Your task to perform on an android device: Show me the alarms in the clock app Image 0: 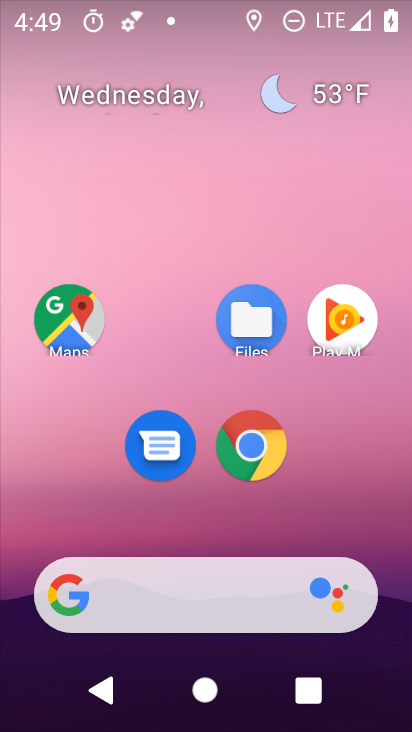
Step 0: drag from (299, 505) to (299, 275)
Your task to perform on an android device: Show me the alarms in the clock app Image 1: 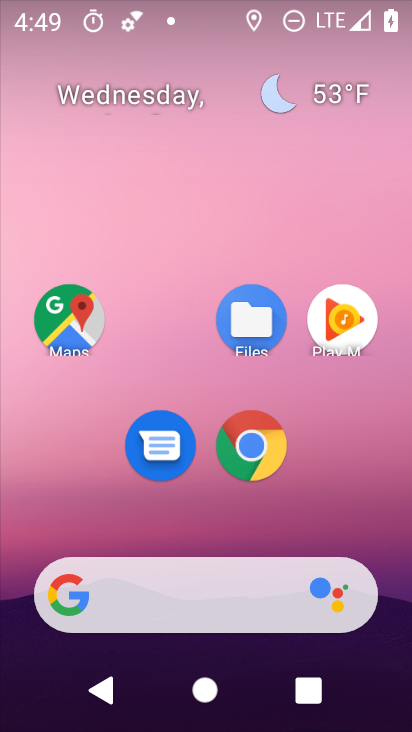
Step 1: drag from (291, 519) to (271, 18)
Your task to perform on an android device: Show me the alarms in the clock app Image 2: 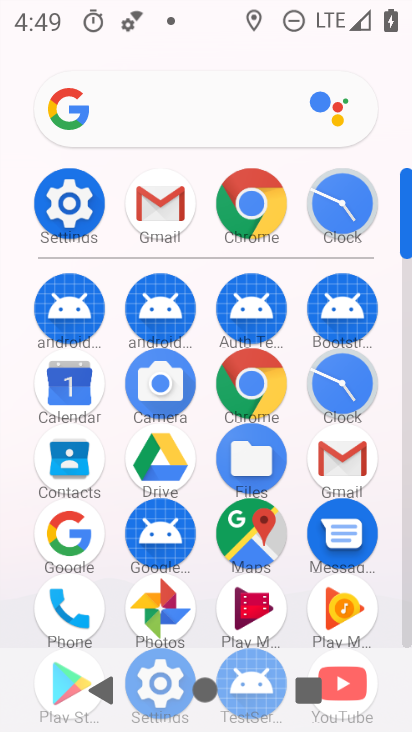
Step 2: click (358, 391)
Your task to perform on an android device: Show me the alarms in the clock app Image 3: 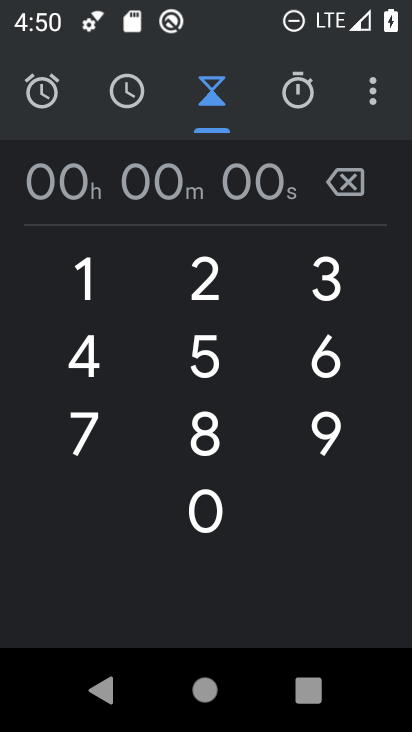
Step 3: click (53, 84)
Your task to perform on an android device: Show me the alarms in the clock app Image 4: 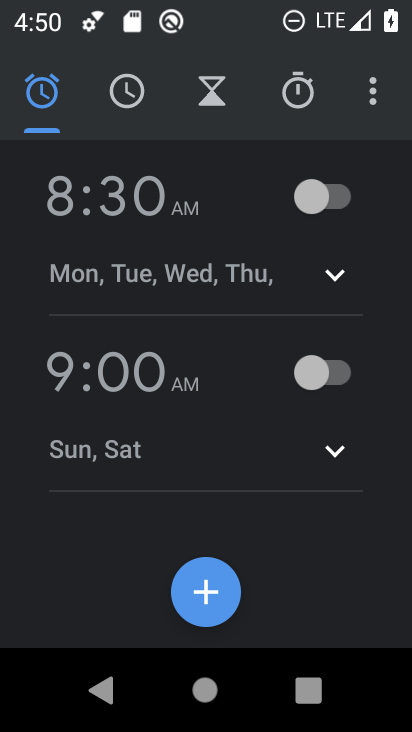
Step 4: task complete